Your task to perform on an android device: Go to Yahoo.com Image 0: 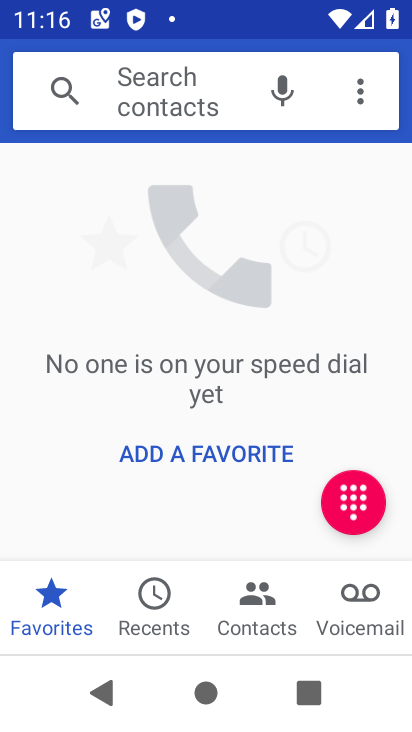
Step 0: press home button
Your task to perform on an android device: Go to Yahoo.com Image 1: 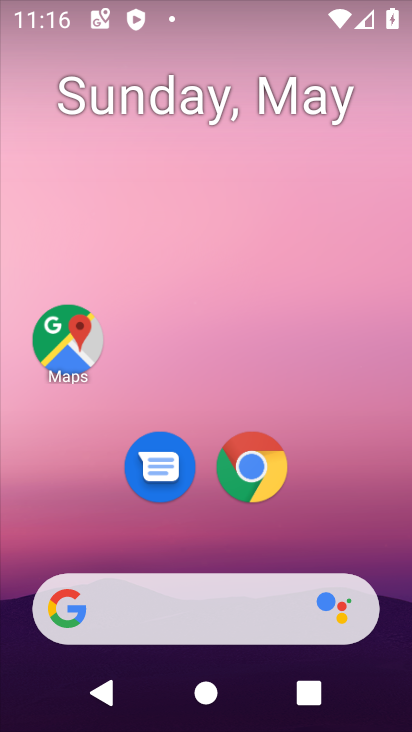
Step 1: click (250, 469)
Your task to perform on an android device: Go to Yahoo.com Image 2: 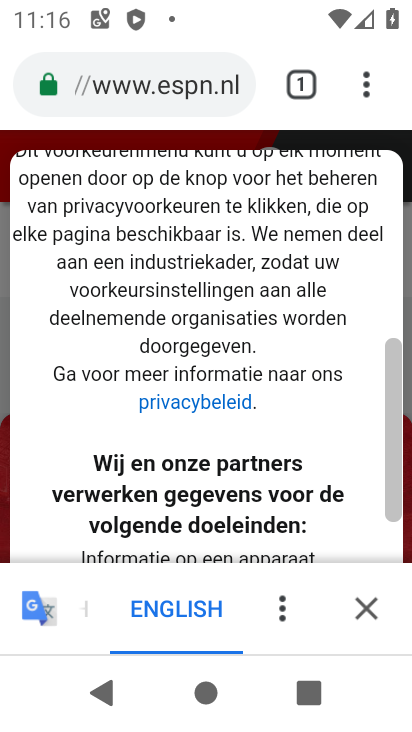
Step 2: click (112, 85)
Your task to perform on an android device: Go to Yahoo.com Image 3: 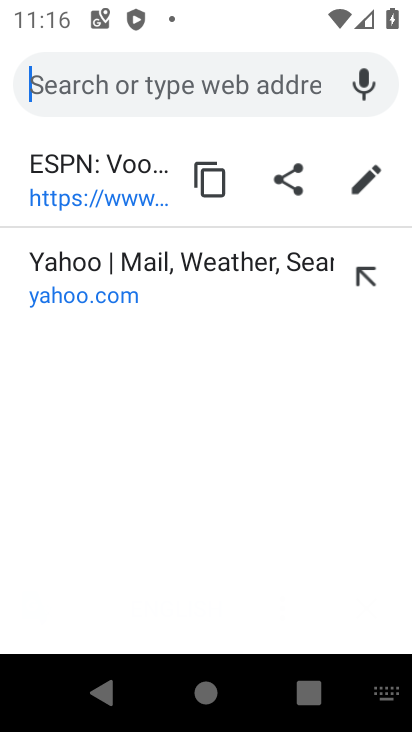
Step 3: click (73, 285)
Your task to perform on an android device: Go to Yahoo.com Image 4: 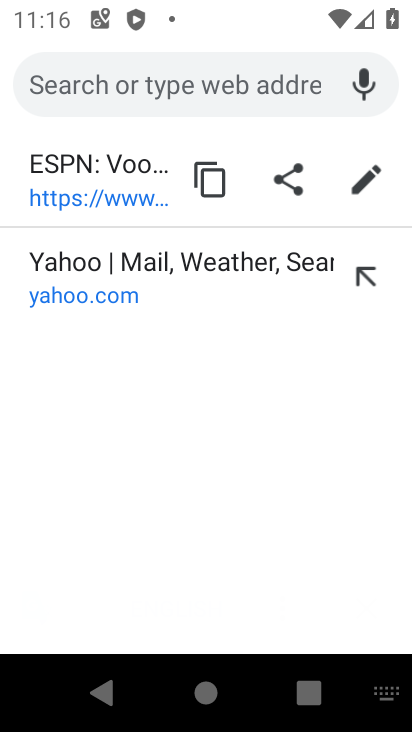
Step 4: click (63, 287)
Your task to perform on an android device: Go to Yahoo.com Image 5: 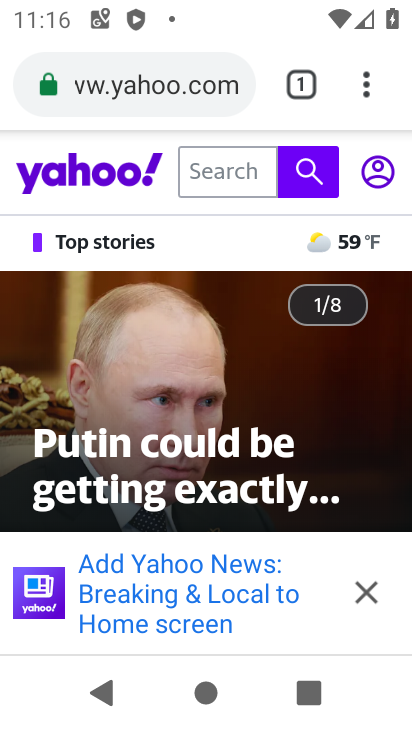
Step 5: task complete